Your task to perform on an android device: Add "dell alienware" to the cart on costco Image 0: 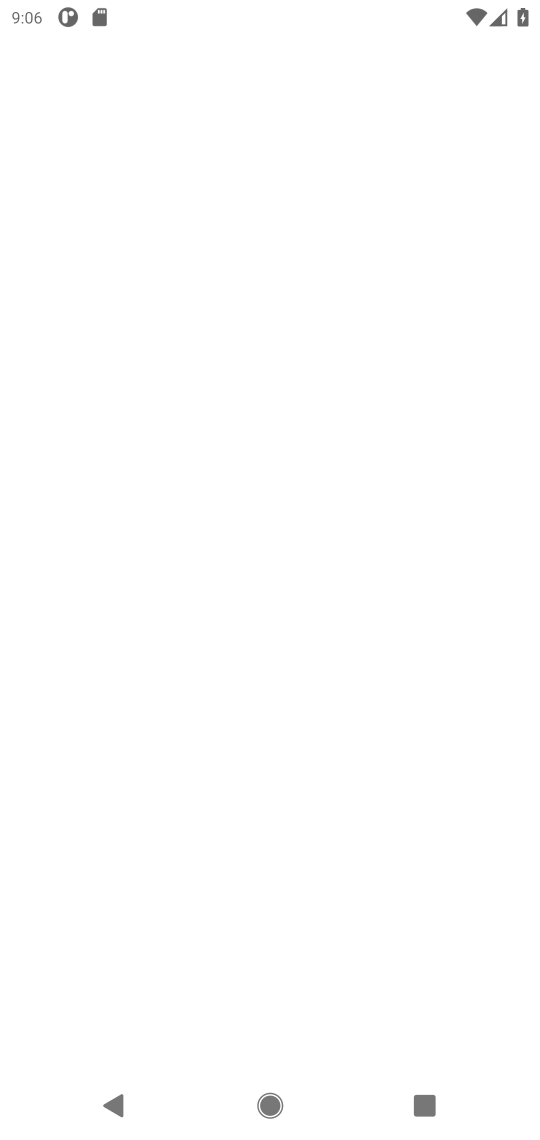
Step 0: click (247, 1012)
Your task to perform on an android device: Add "dell alienware" to the cart on costco Image 1: 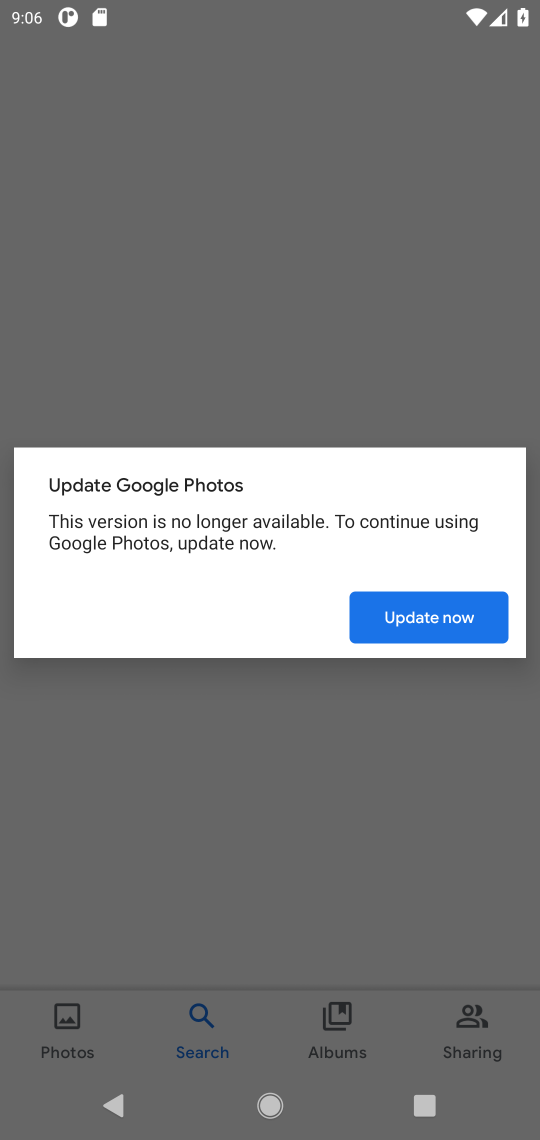
Step 1: press home button
Your task to perform on an android device: Add "dell alienware" to the cart on costco Image 2: 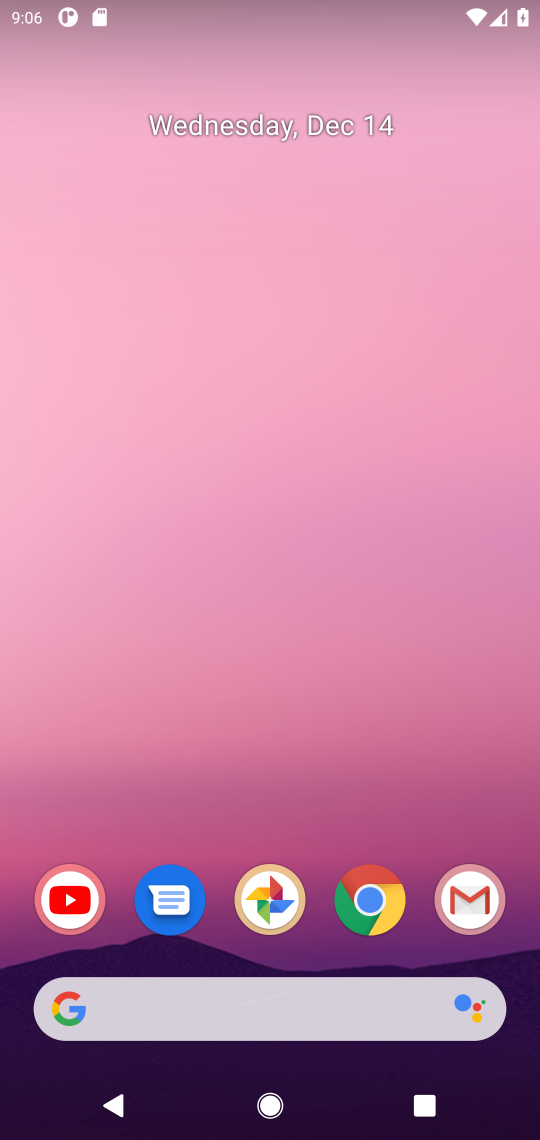
Step 2: click (209, 1009)
Your task to perform on an android device: Add "dell alienware" to the cart on costco Image 3: 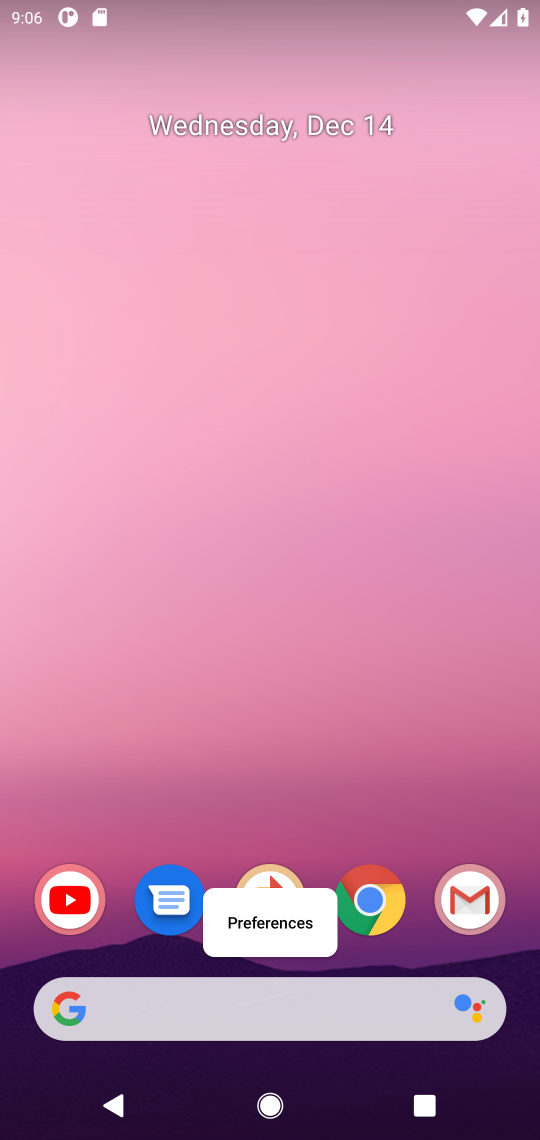
Step 3: click (292, 1035)
Your task to perform on an android device: Add "dell alienware" to the cart on costco Image 4: 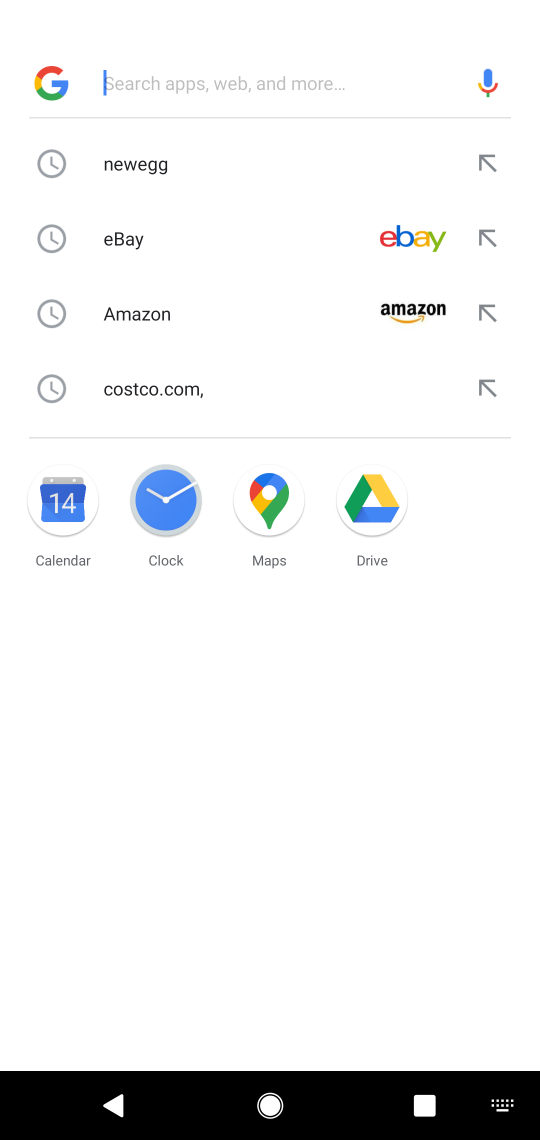
Step 4: click (173, 408)
Your task to perform on an android device: Add "dell alienware" to the cart on costco Image 5: 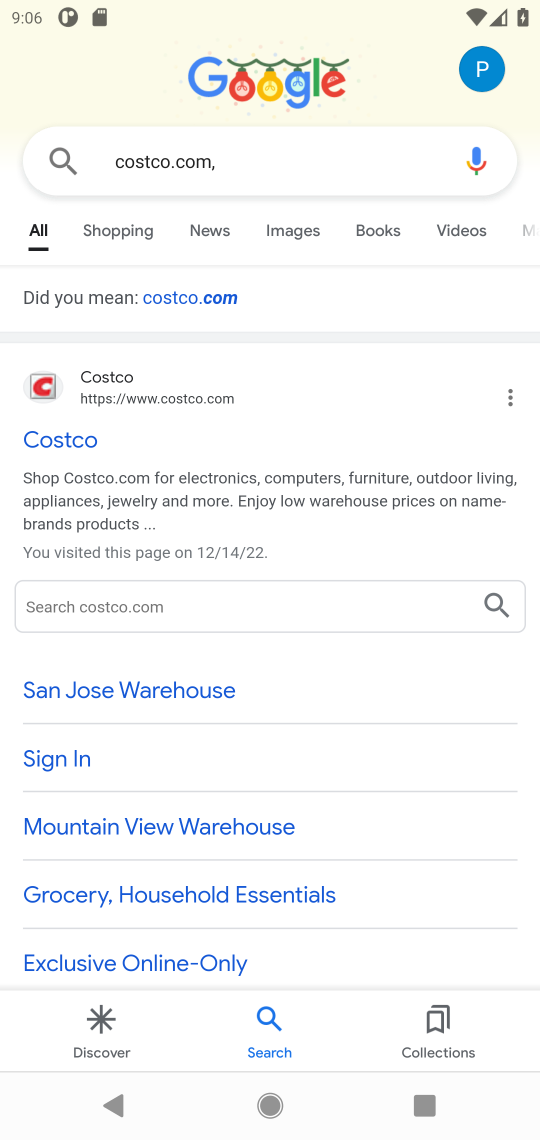
Step 5: click (75, 456)
Your task to perform on an android device: Add "dell alienware" to the cart on costco Image 6: 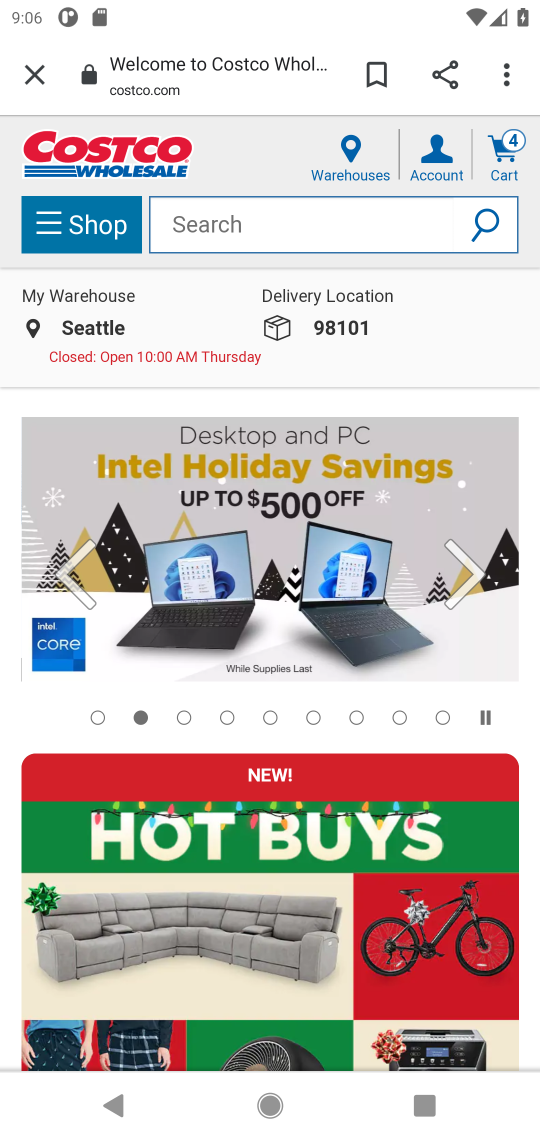
Step 6: click (377, 207)
Your task to perform on an android device: Add "dell alienware" to the cart on costco Image 7: 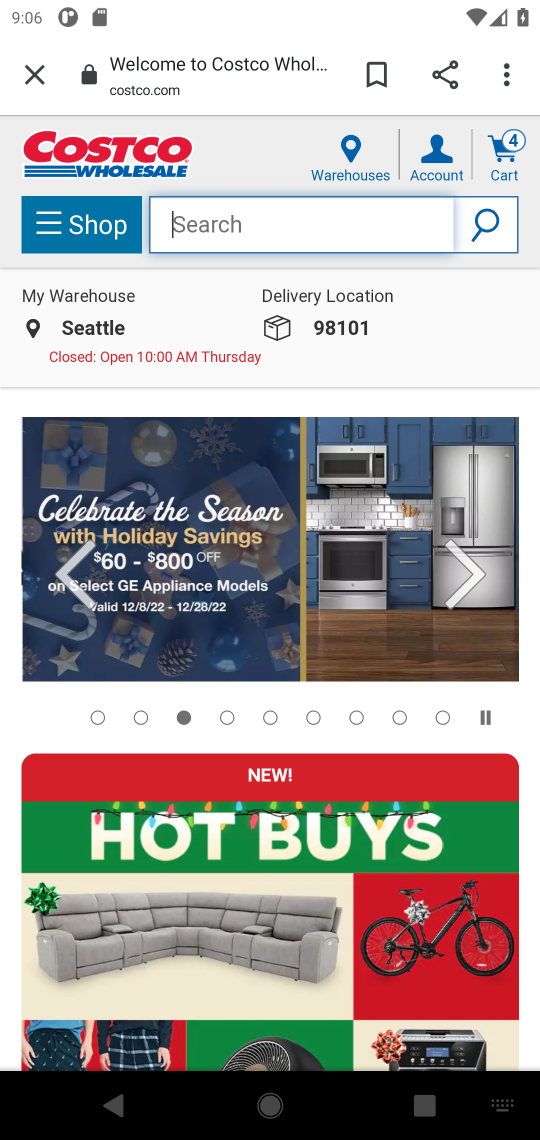
Step 7: type "dell alienware""
Your task to perform on an android device: Add "dell alienware" to the cart on costco Image 8: 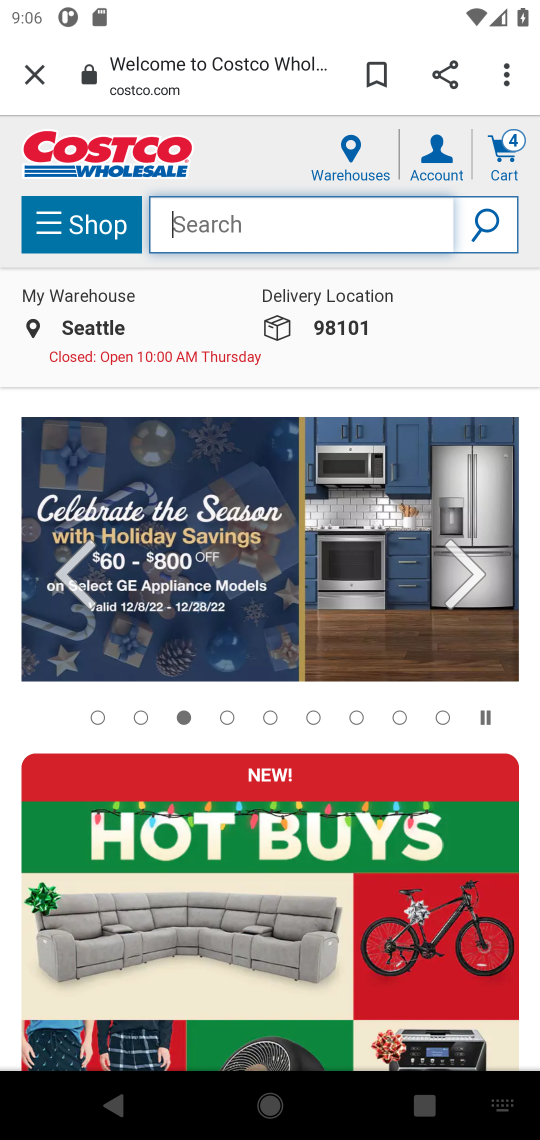
Step 8: click (302, 231)
Your task to perform on an android device: Add "dell alienware" to the cart on costco Image 9: 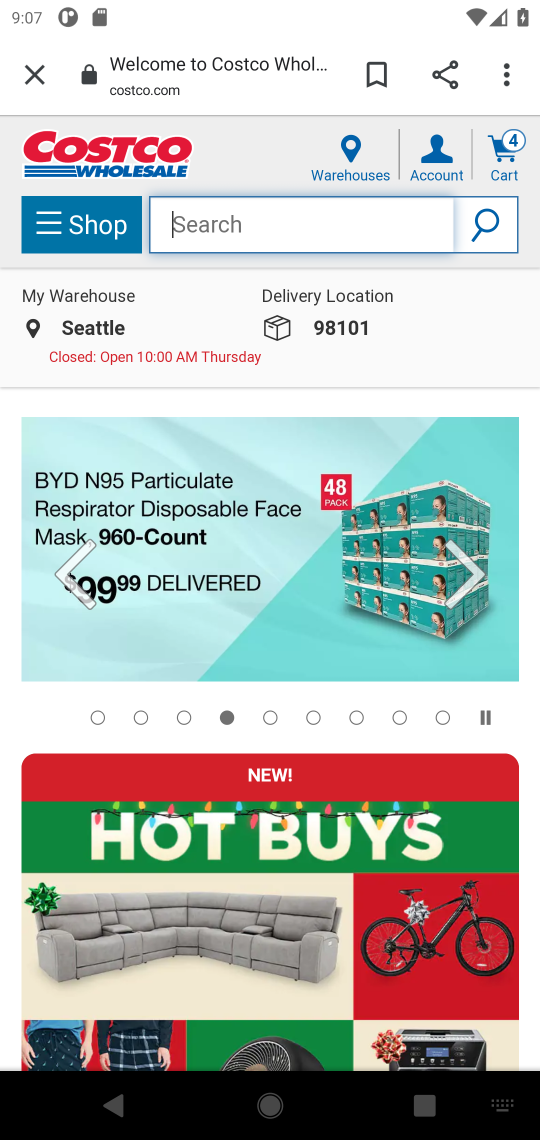
Step 9: type "dell alienware""
Your task to perform on an android device: Add "dell alienware" to the cart on costco Image 10: 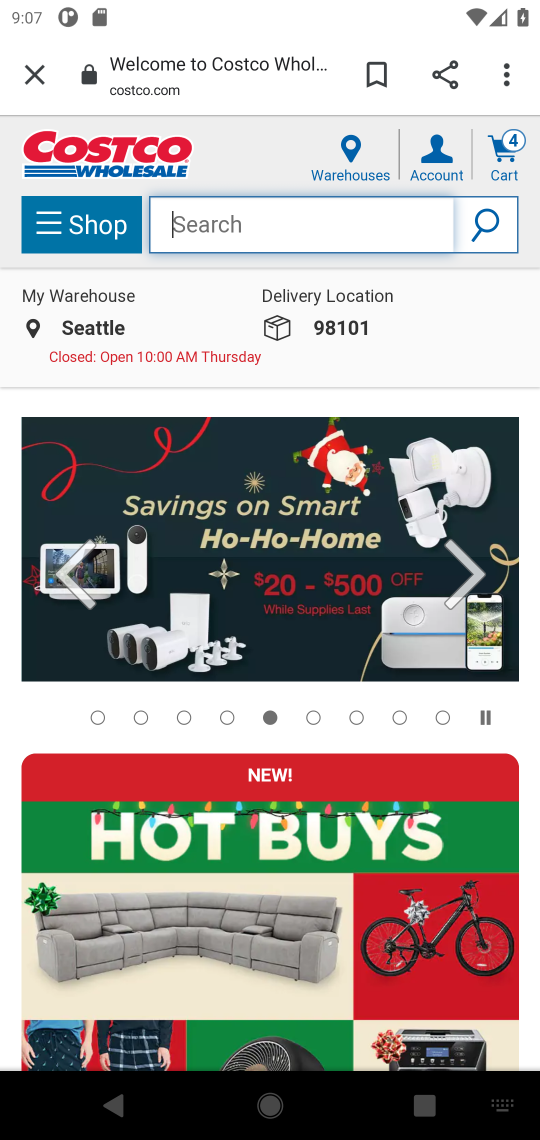
Step 10: type "dell alienware""
Your task to perform on an android device: Add "dell alienware" to the cart on costco Image 11: 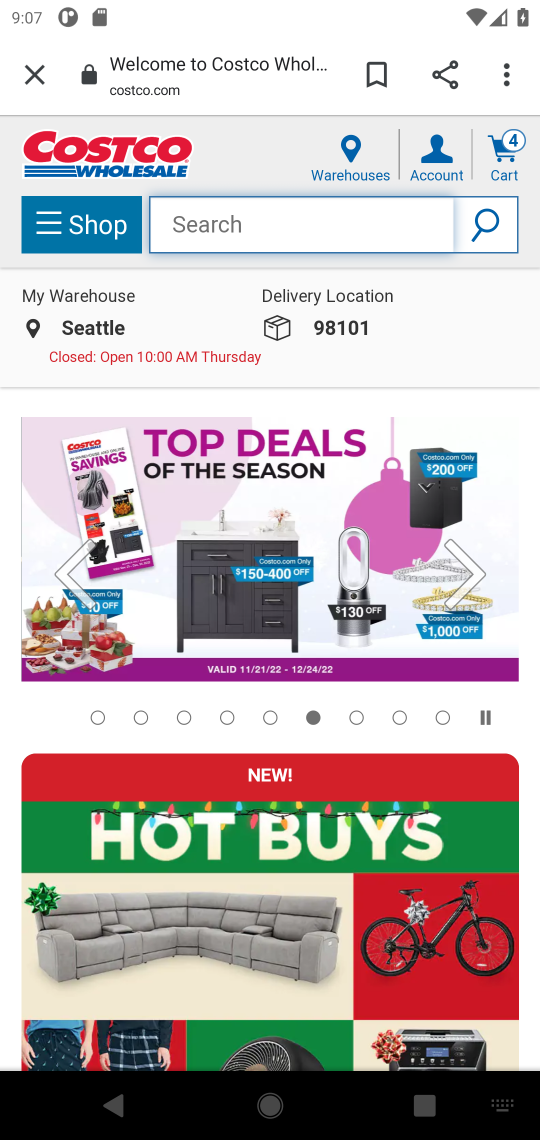
Step 11: task complete